Your task to perform on an android device: Go to display settings Image 0: 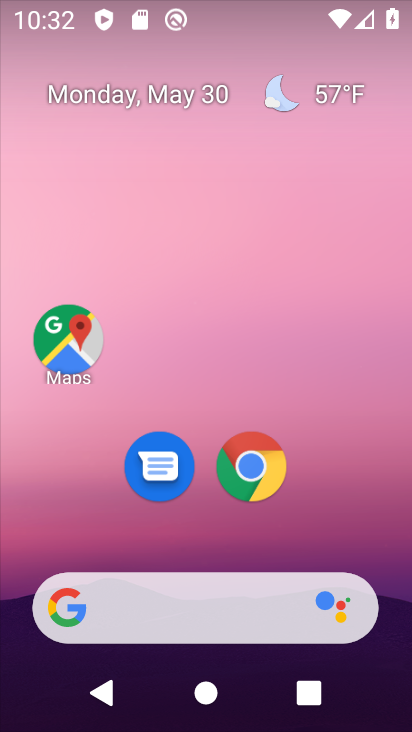
Step 0: drag from (80, 552) to (156, 50)
Your task to perform on an android device: Go to display settings Image 1: 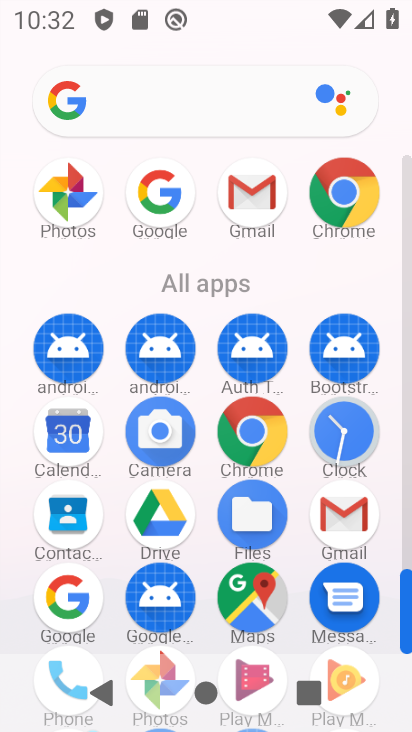
Step 1: drag from (145, 608) to (188, 287)
Your task to perform on an android device: Go to display settings Image 2: 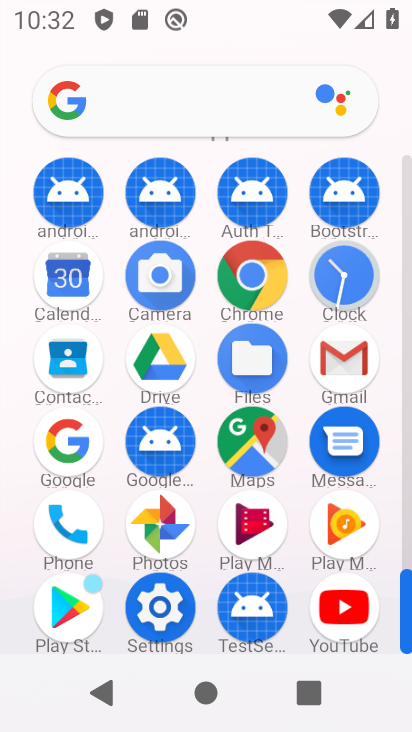
Step 2: click (147, 619)
Your task to perform on an android device: Go to display settings Image 3: 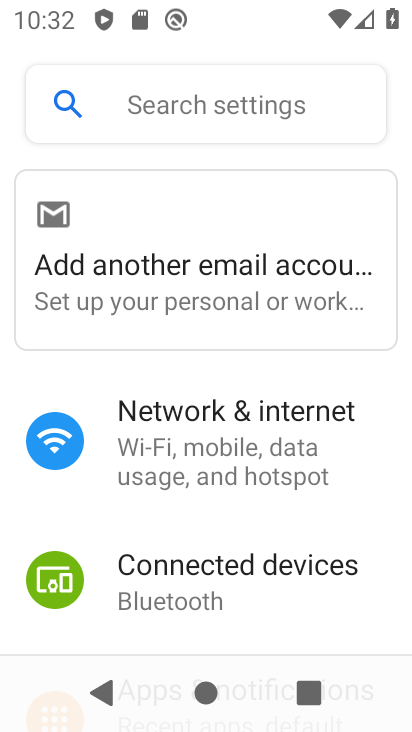
Step 3: drag from (174, 587) to (243, 148)
Your task to perform on an android device: Go to display settings Image 4: 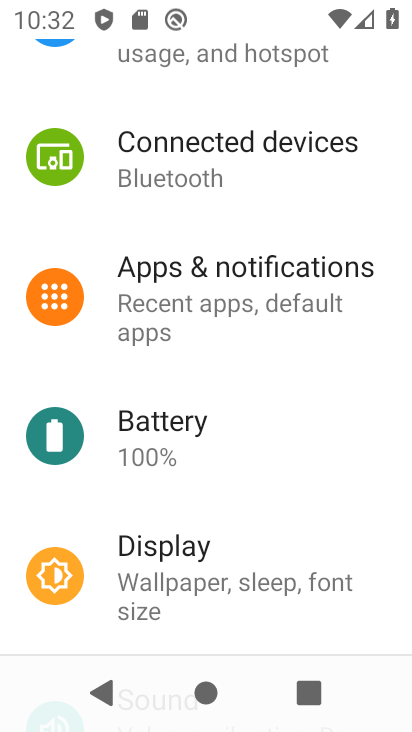
Step 4: click (213, 570)
Your task to perform on an android device: Go to display settings Image 5: 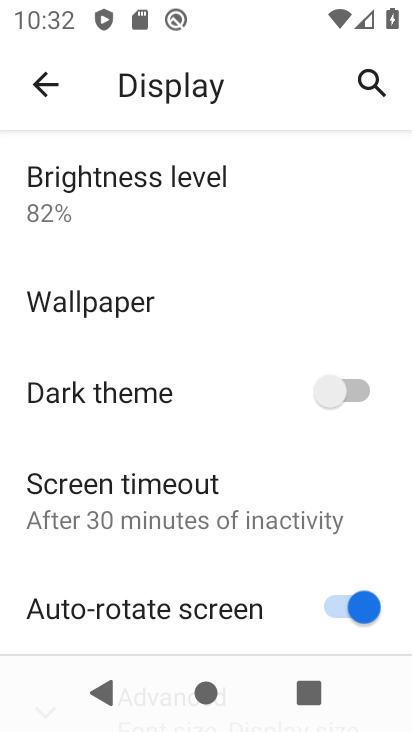
Step 5: task complete